Your task to perform on an android device: check out phone information Image 0: 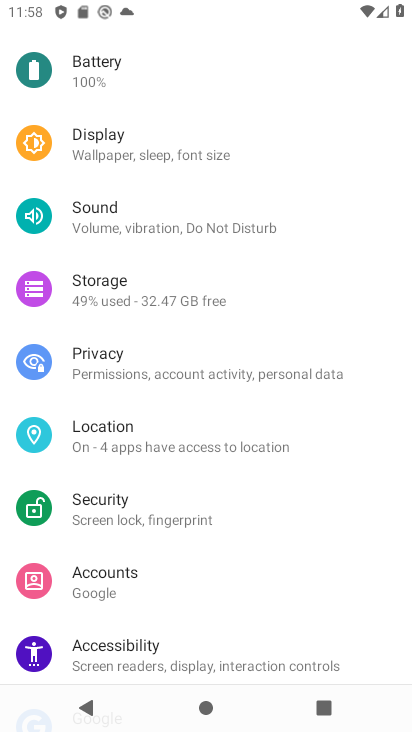
Step 0: drag from (310, 559) to (281, 198)
Your task to perform on an android device: check out phone information Image 1: 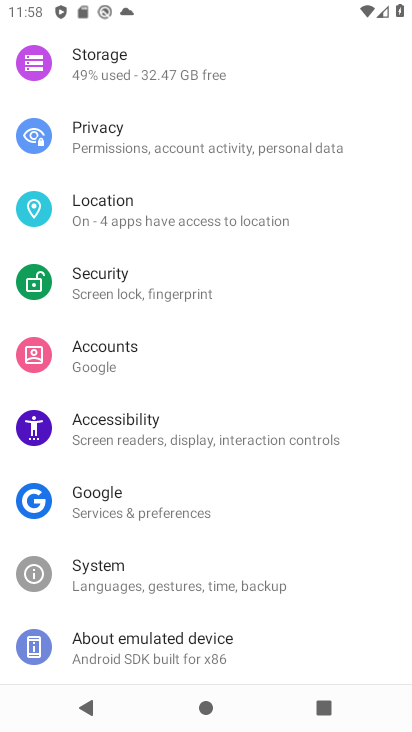
Step 1: click (199, 648)
Your task to perform on an android device: check out phone information Image 2: 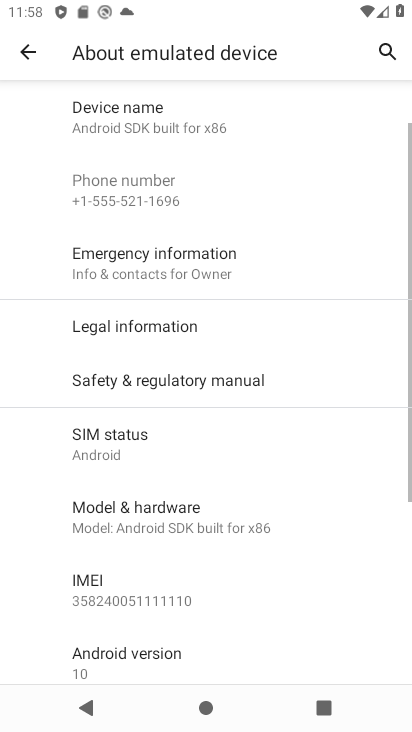
Step 2: task complete